Your task to perform on an android device: Open the web browser Image 0: 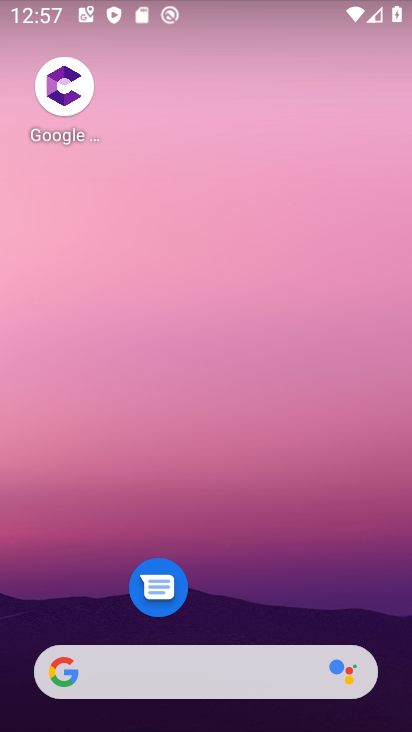
Step 0: drag from (266, 609) to (324, 102)
Your task to perform on an android device: Open the web browser Image 1: 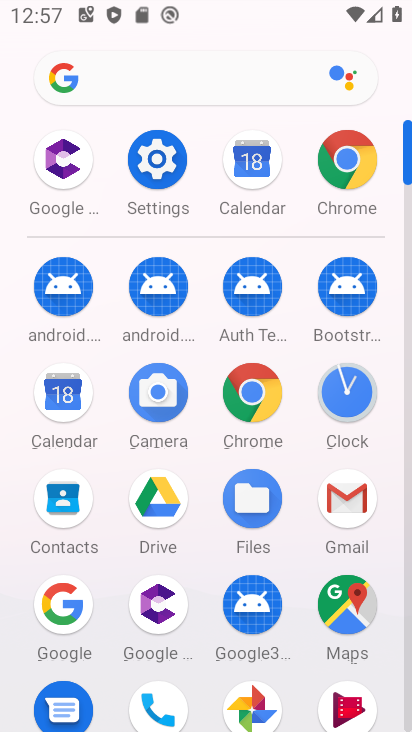
Step 1: click (354, 215)
Your task to perform on an android device: Open the web browser Image 2: 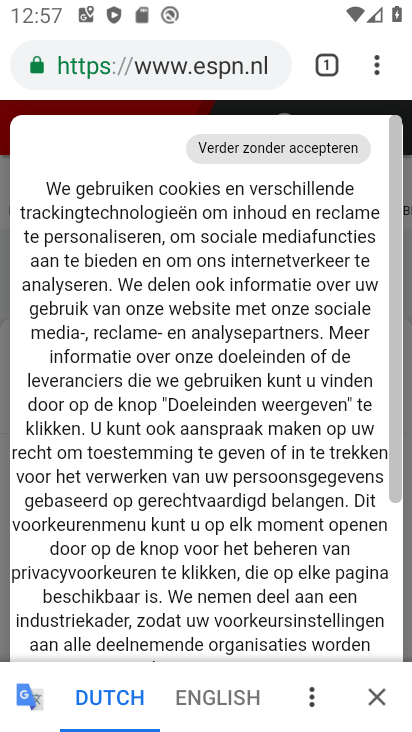
Step 2: task complete